Your task to perform on an android device: choose inbox layout in the gmail app Image 0: 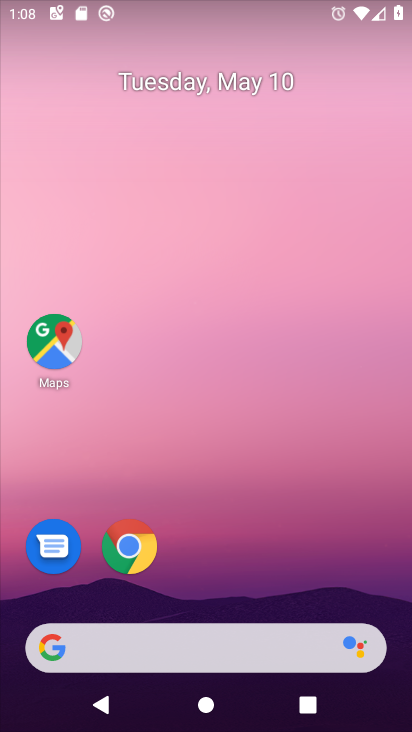
Step 0: drag from (284, 562) to (130, 45)
Your task to perform on an android device: choose inbox layout in the gmail app Image 1: 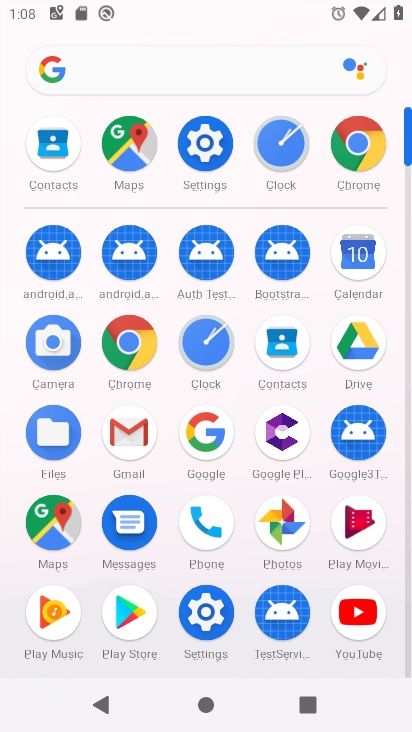
Step 1: click (119, 415)
Your task to perform on an android device: choose inbox layout in the gmail app Image 2: 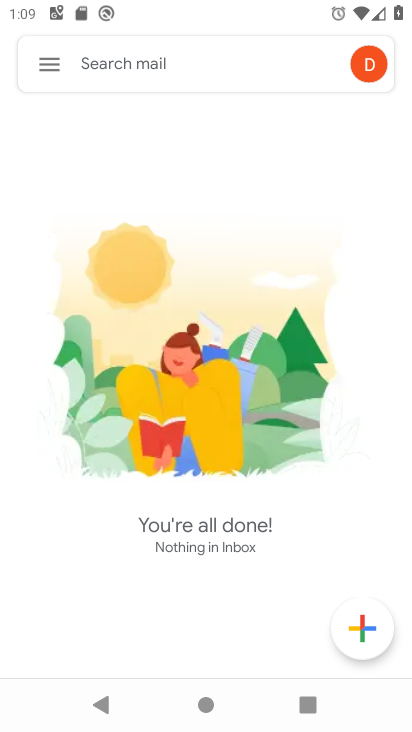
Step 2: click (48, 75)
Your task to perform on an android device: choose inbox layout in the gmail app Image 3: 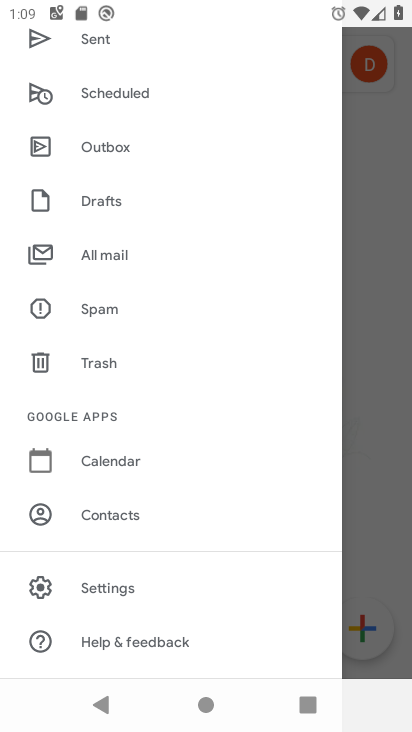
Step 3: click (135, 599)
Your task to perform on an android device: choose inbox layout in the gmail app Image 4: 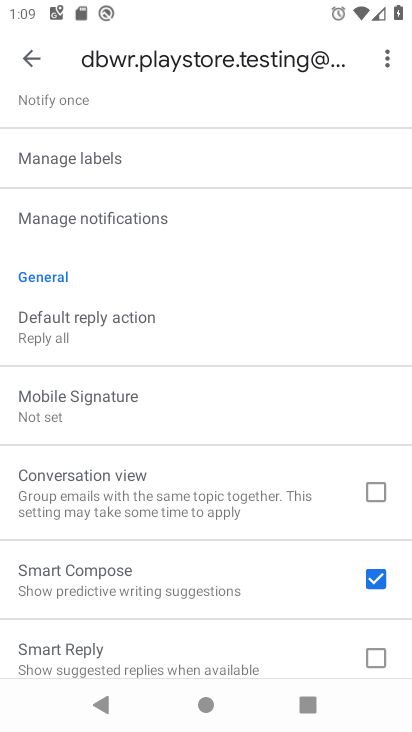
Step 4: drag from (175, 251) to (257, 663)
Your task to perform on an android device: choose inbox layout in the gmail app Image 5: 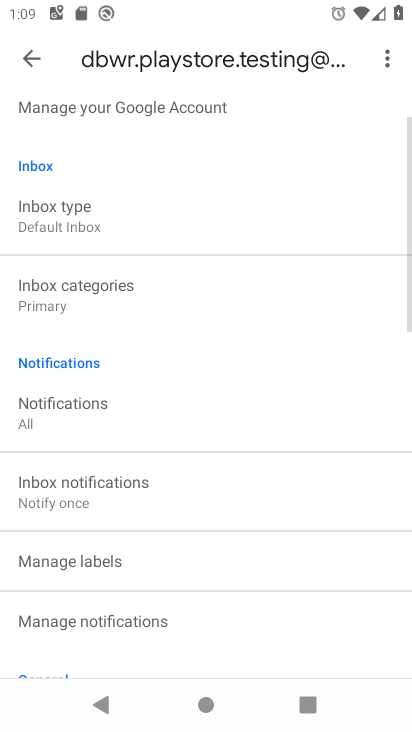
Step 5: drag from (242, 256) to (265, 580)
Your task to perform on an android device: choose inbox layout in the gmail app Image 6: 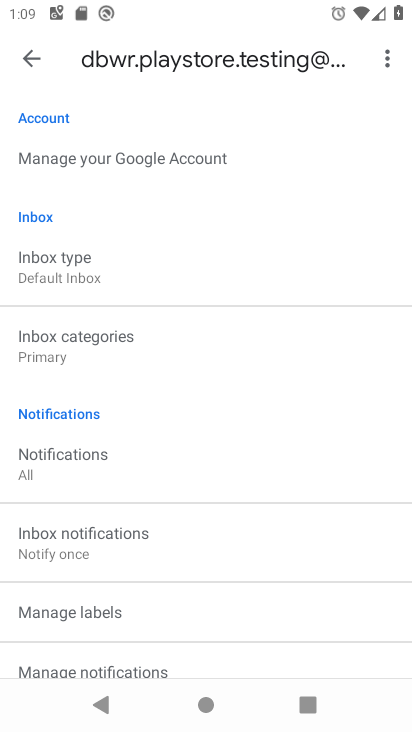
Step 6: click (100, 280)
Your task to perform on an android device: choose inbox layout in the gmail app Image 7: 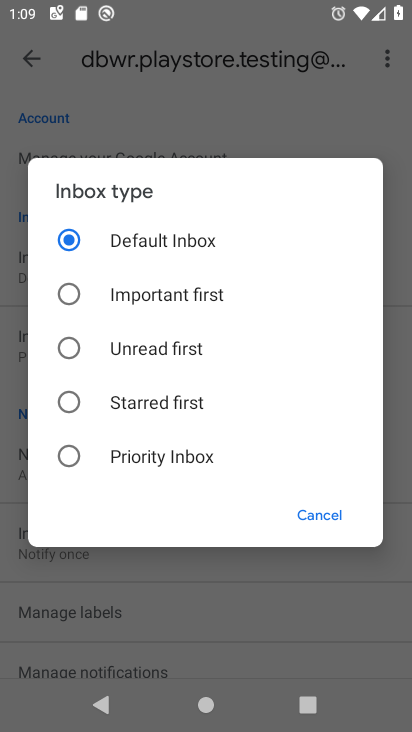
Step 7: click (146, 455)
Your task to perform on an android device: choose inbox layout in the gmail app Image 8: 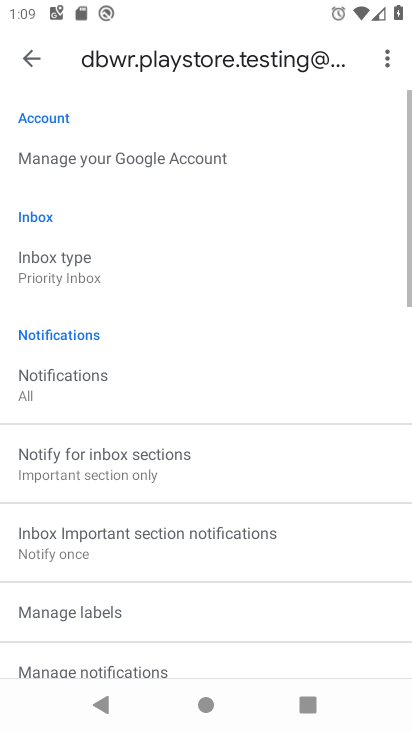
Step 8: task complete